Your task to perform on an android device: Open Amazon Image 0: 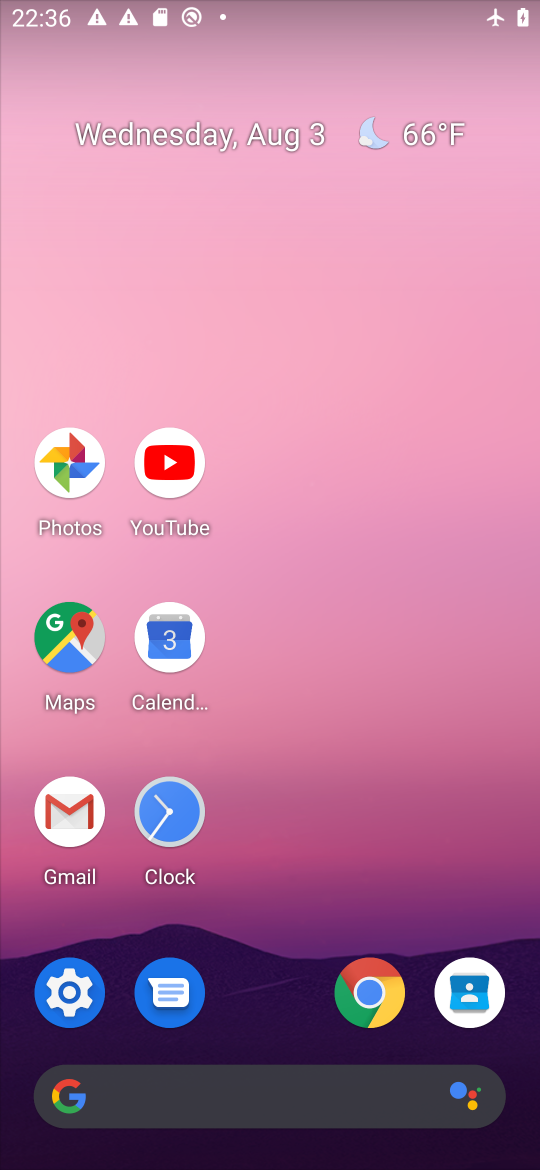
Step 0: click (374, 1006)
Your task to perform on an android device: Open Amazon Image 1: 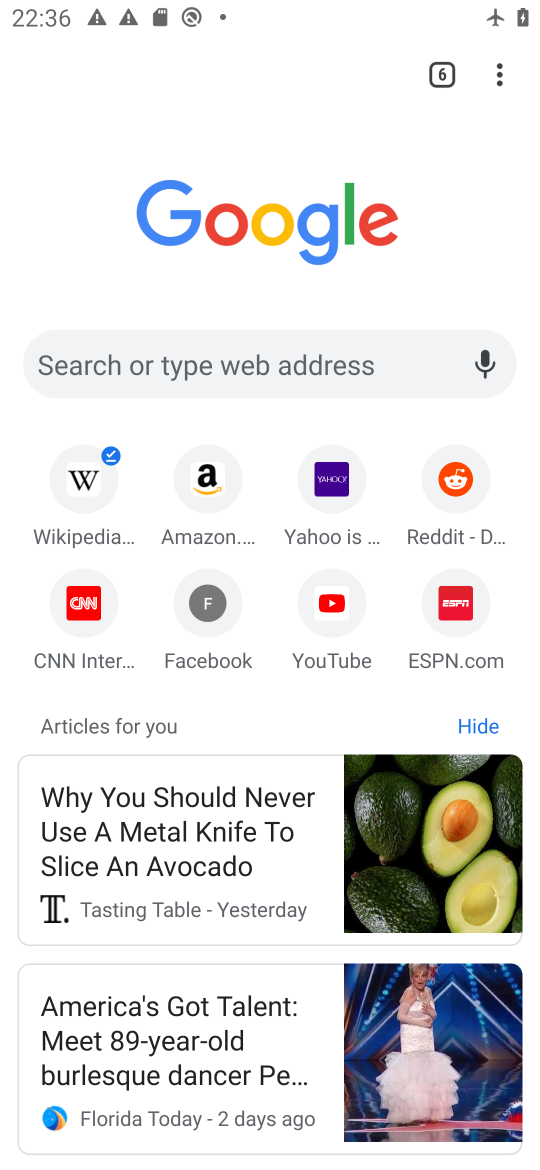
Step 1: click (200, 466)
Your task to perform on an android device: Open Amazon Image 2: 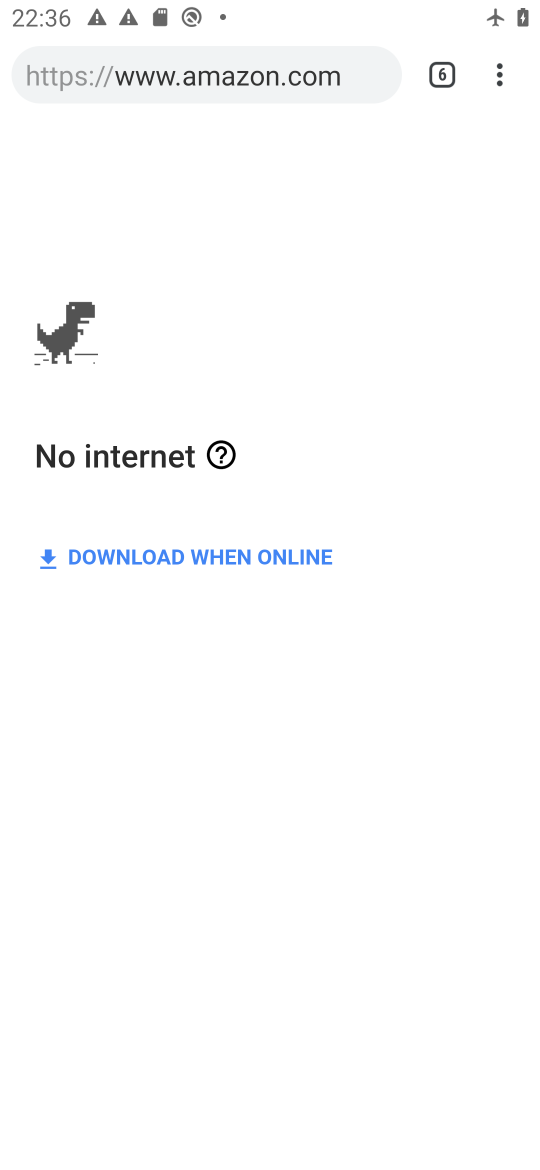
Step 2: click (502, 72)
Your task to perform on an android device: Open Amazon Image 3: 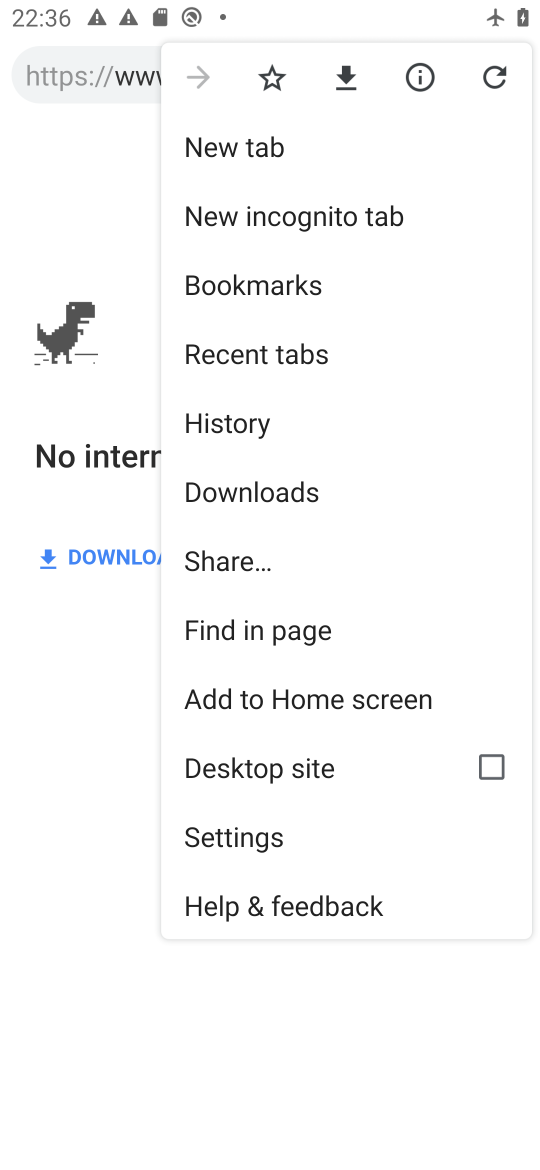
Step 3: click (489, 81)
Your task to perform on an android device: Open Amazon Image 4: 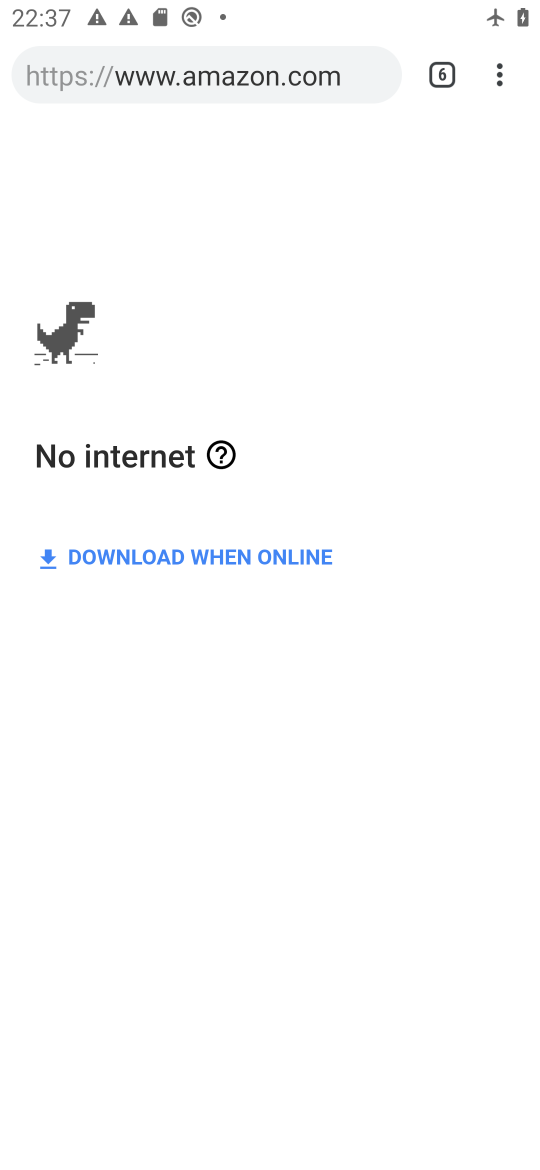
Step 4: task complete